Your task to perform on an android device: find which apps use the phone's location Image 0: 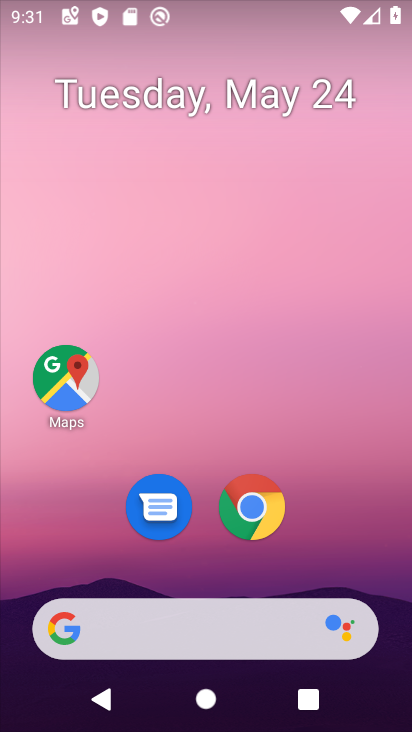
Step 0: drag from (67, 587) to (215, 233)
Your task to perform on an android device: find which apps use the phone's location Image 1: 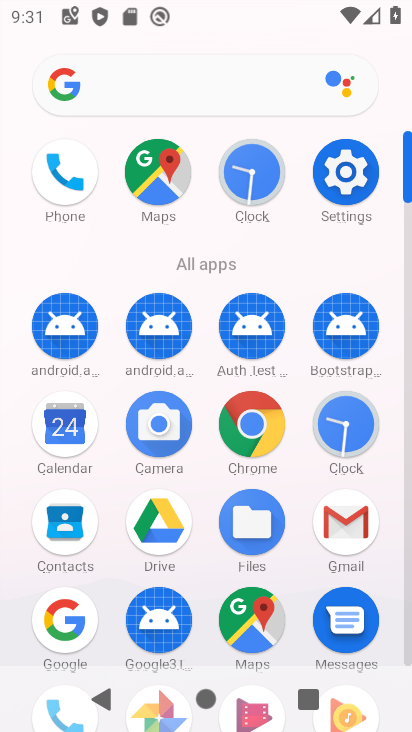
Step 1: drag from (145, 602) to (241, 308)
Your task to perform on an android device: find which apps use the phone's location Image 2: 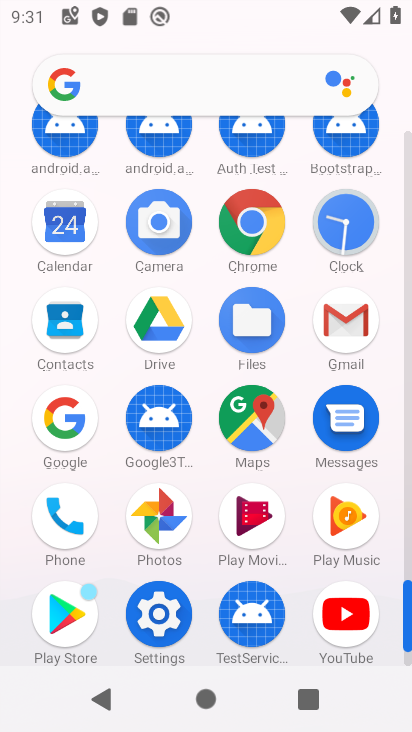
Step 2: click (154, 612)
Your task to perform on an android device: find which apps use the phone's location Image 3: 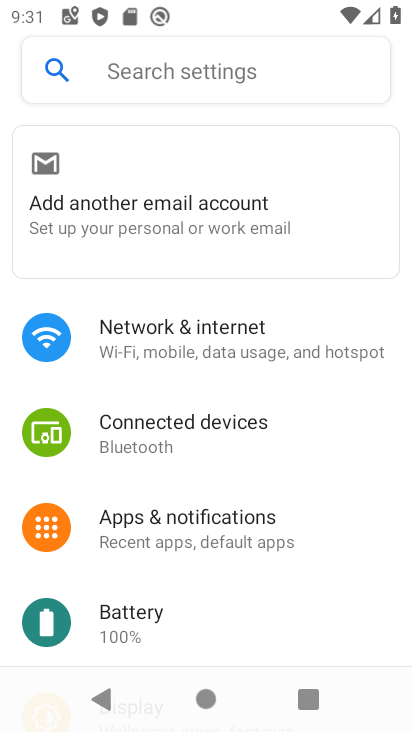
Step 3: drag from (171, 563) to (359, 214)
Your task to perform on an android device: find which apps use the phone's location Image 4: 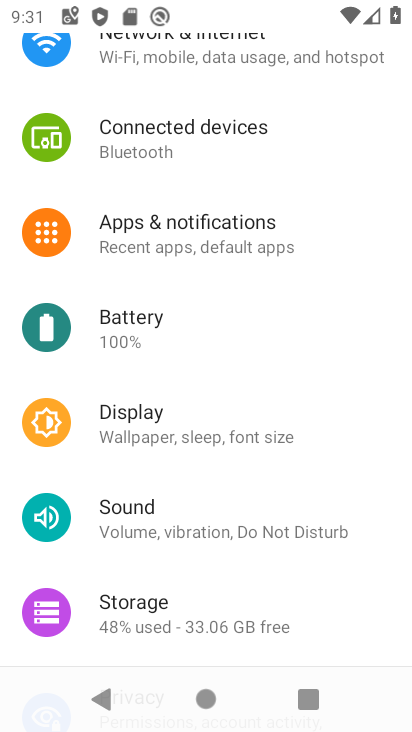
Step 4: drag from (170, 608) to (362, 247)
Your task to perform on an android device: find which apps use the phone's location Image 5: 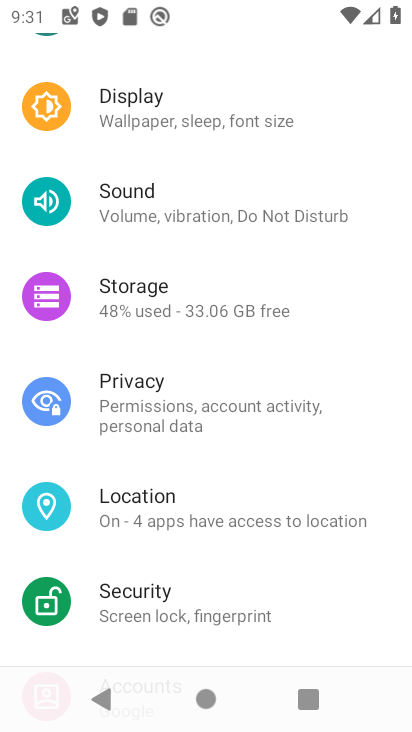
Step 5: click (172, 513)
Your task to perform on an android device: find which apps use the phone's location Image 6: 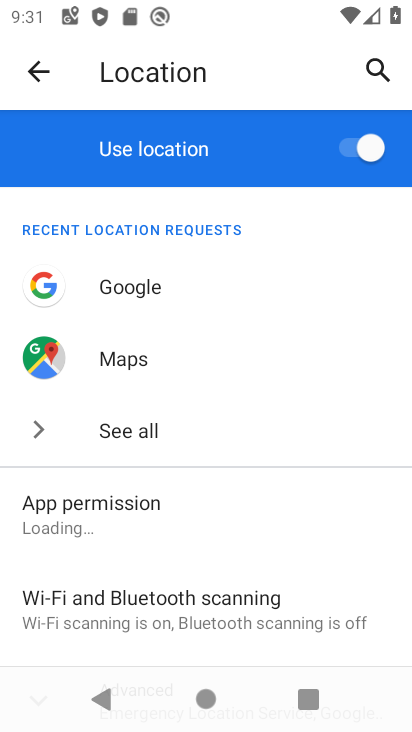
Step 6: click (151, 513)
Your task to perform on an android device: find which apps use the phone's location Image 7: 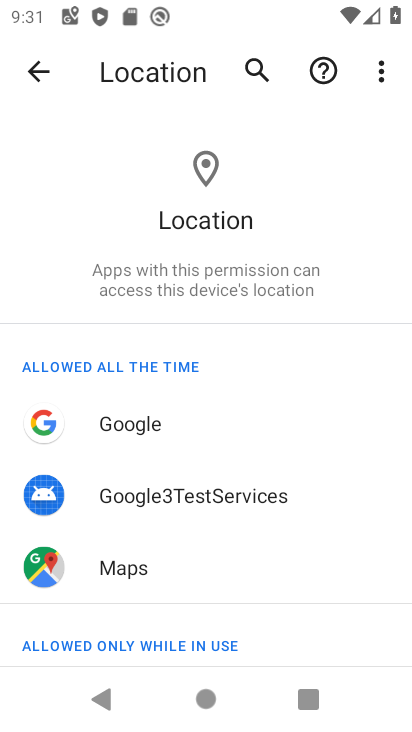
Step 7: task complete